Your task to perform on an android device: Go to location settings Image 0: 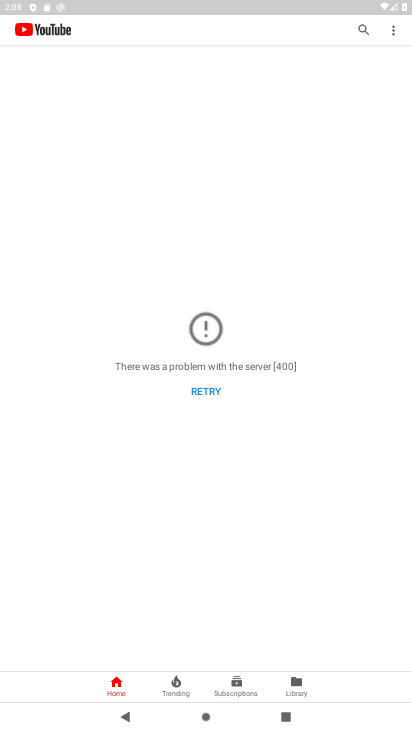
Step 0: press home button
Your task to perform on an android device: Go to location settings Image 1: 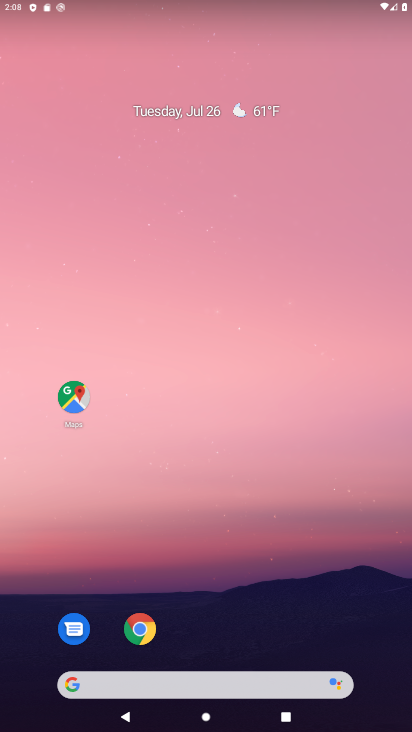
Step 1: drag from (242, 593) to (259, 101)
Your task to perform on an android device: Go to location settings Image 2: 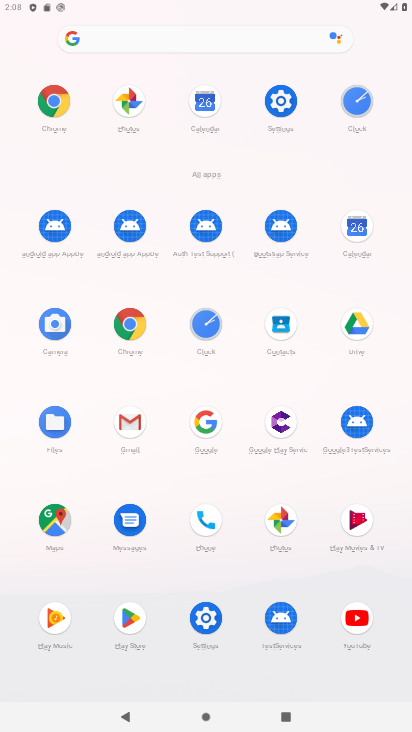
Step 2: click (281, 96)
Your task to perform on an android device: Go to location settings Image 3: 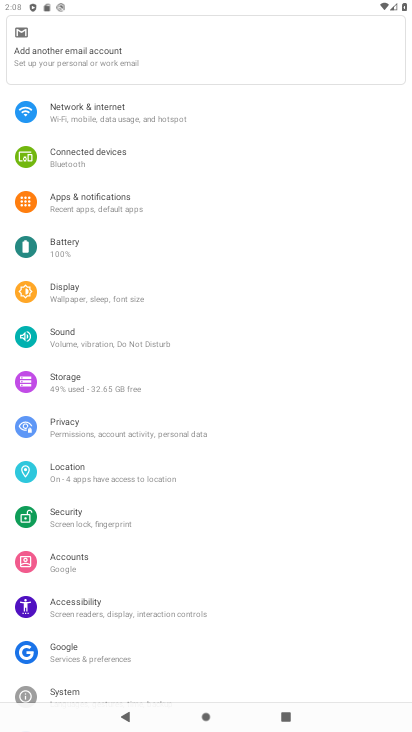
Step 3: click (81, 472)
Your task to perform on an android device: Go to location settings Image 4: 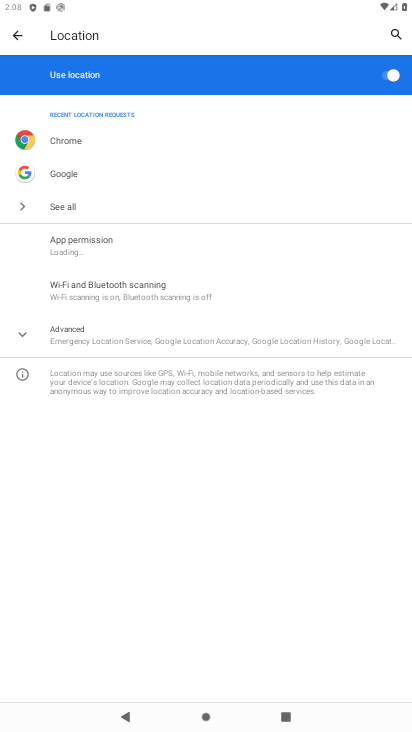
Step 4: task complete